Your task to perform on an android device: open a new tab in the chrome app Image 0: 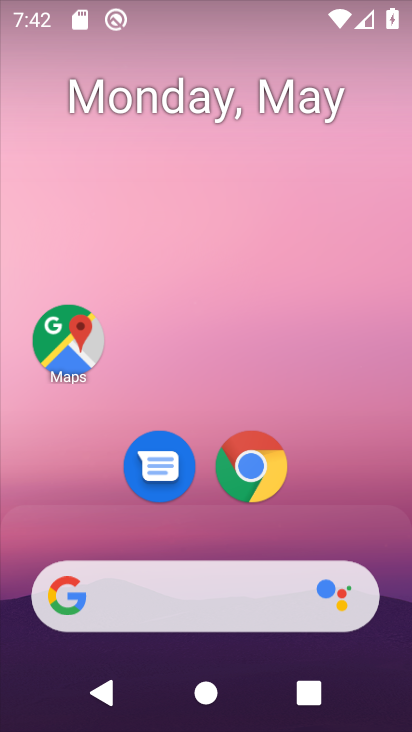
Step 0: drag from (243, 679) to (314, 191)
Your task to perform on an android device: open a new tab in the chrome app Image 1: 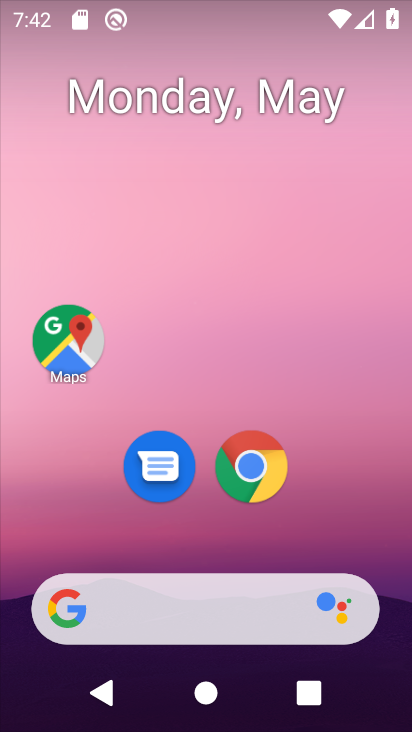
Step 1: drag from (223, 680) to (281, 5)
Your task to perform on an android device: open a new tab in the chrome app Image 2: 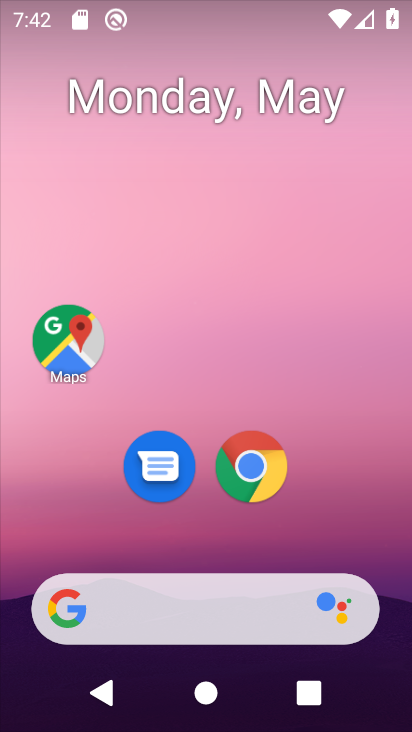
Step 2: drag from (261, 656) to (218, 17)
Your task to perform on an android device: open a new tab in the chrome app Image 3: 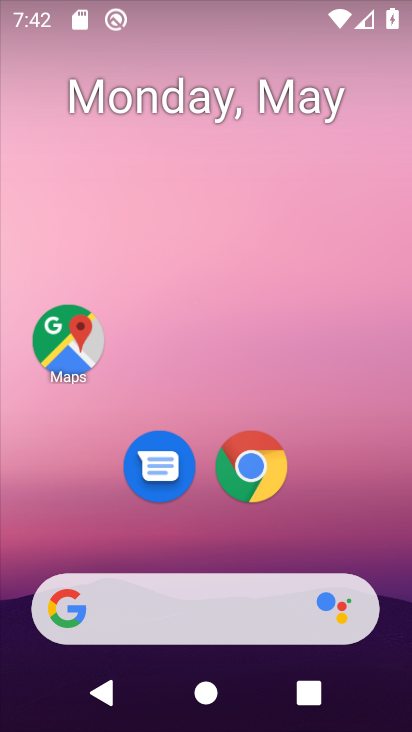
Step 3: drag from (260, 625) to (229, 147)
Your task to perform on an android device: open a new tab in the chrome app Image 4: 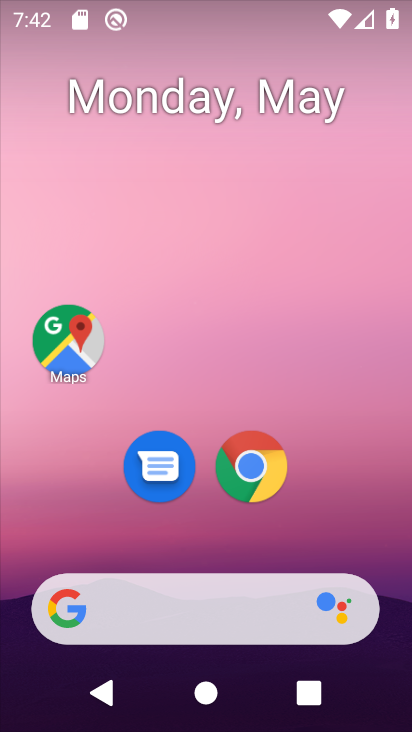
Step 4: drag from (338, 664) to (299, 39)
Your task to perform on an android device: open a new tab in the chrome app Image 5: 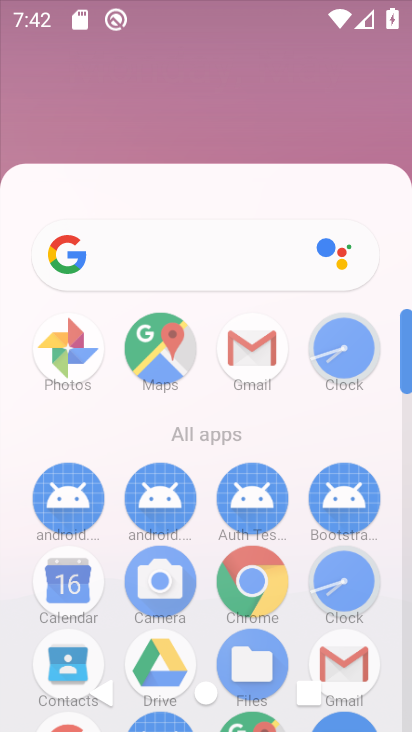
Step 5: drag from (311, 632) to (248, 51)
Your task to perform on an android device: open a new tab in the chrome app Image 6: 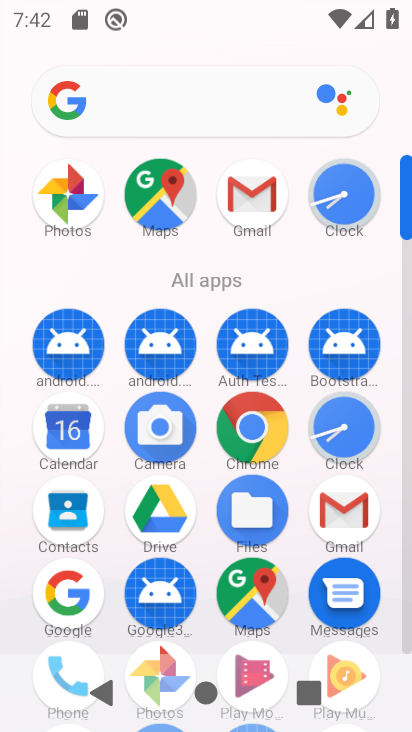
Step 6: click (240, 432)
Your task to perform on an android device: open a new tab in the chrome app Image 7: 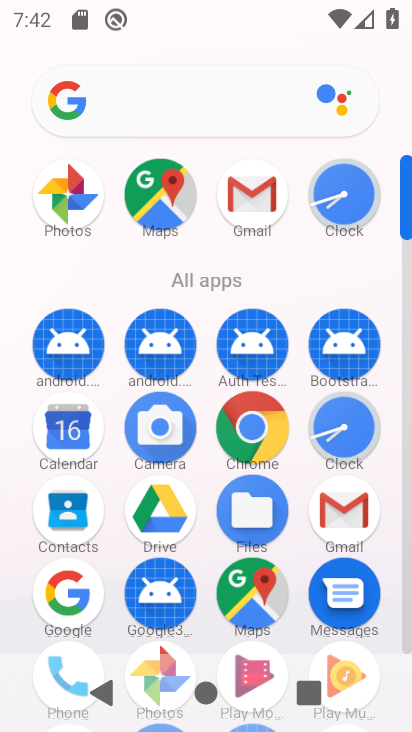
Step 7: click (241, 431)
Your task to perform on an android device: open a new tab in the chrome app Image 8: 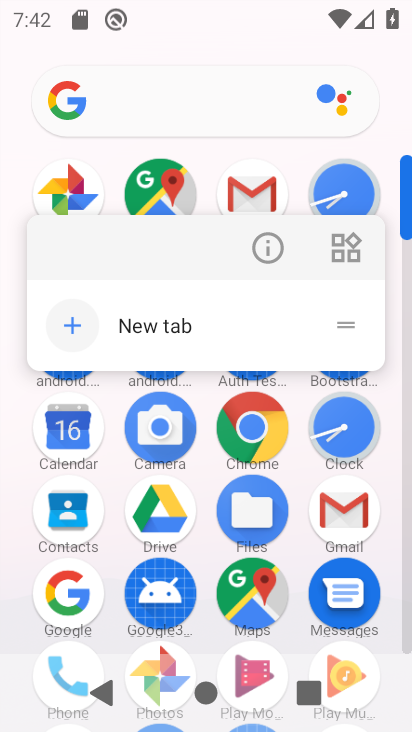
Step 8: click (253, 430)
Your task to perform on an android device: open a new tab in the chrome app Image 9: 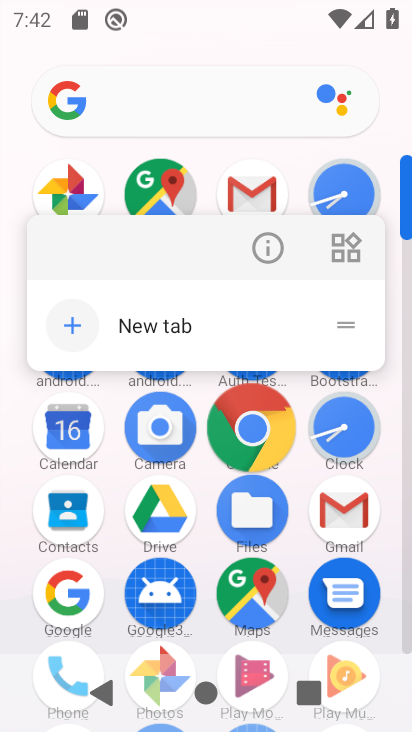
Step 9: click (250, 422)
Your task to perform on an android device: open a new tab in the chrome app Image 10: 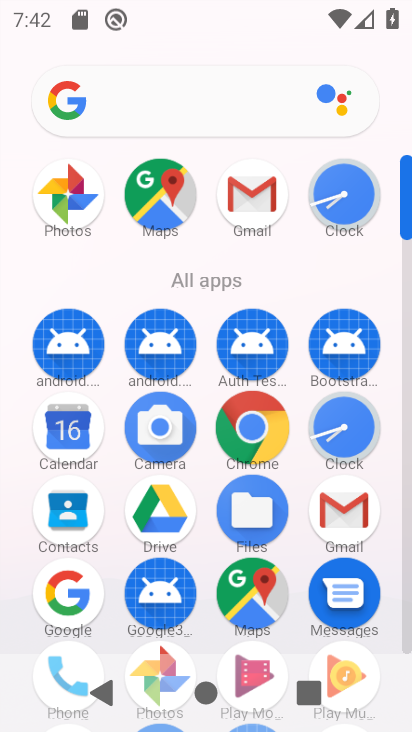
Step 10: click (251, 421)
Your task to perform on an android device: open a new tab in the chrome app Image 11: 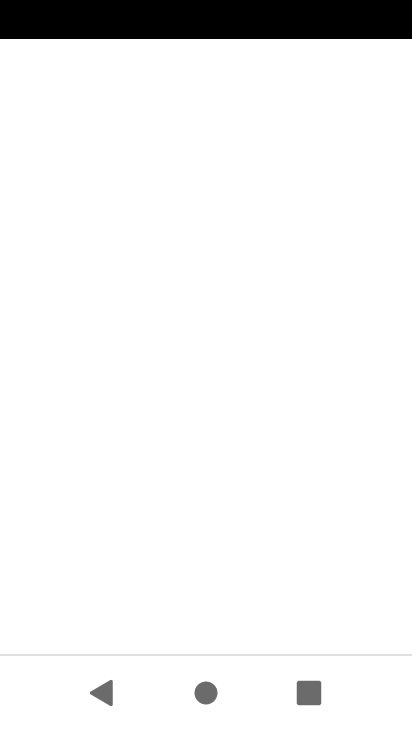
Step 11: click (254, 414)
Your task to perform on an android device: open a new tab in the chrome app Image 12: 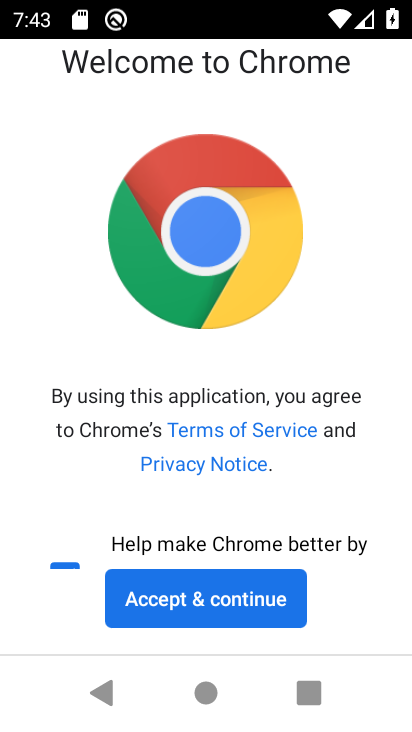
Step 12: click (218, 586)
Your task to perform on an android device: open a new tab in the chrome app Image 13: 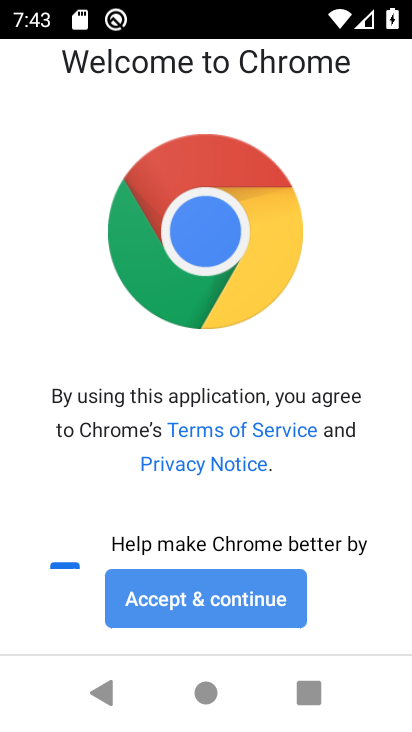
Step 13: click (217, 587)
Your task to perform on an android device: open a new tab in the chrome app Image 14: 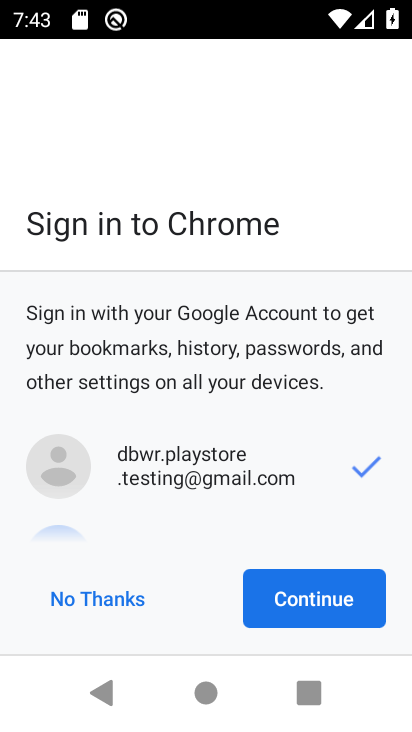
Step 14: click (229, 593)
Your task to perform on an android device: open a new tab in the chrome app Image 15: 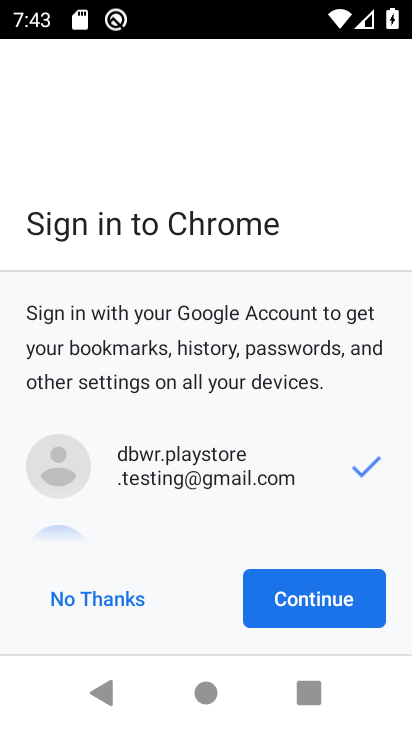
Step 15: click (301, 586)
Your task to perform on an android device: open a new tab in the chrome app Image 16: 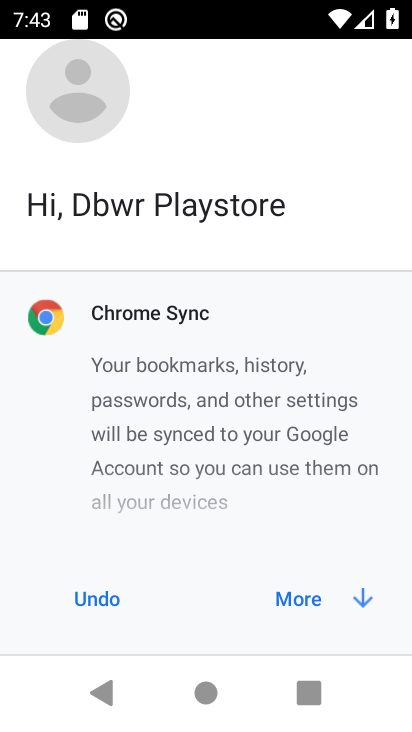
Step 16: click (310, 597)
Your task to perform on an android device: open a new tab in the chrome app Image 17: 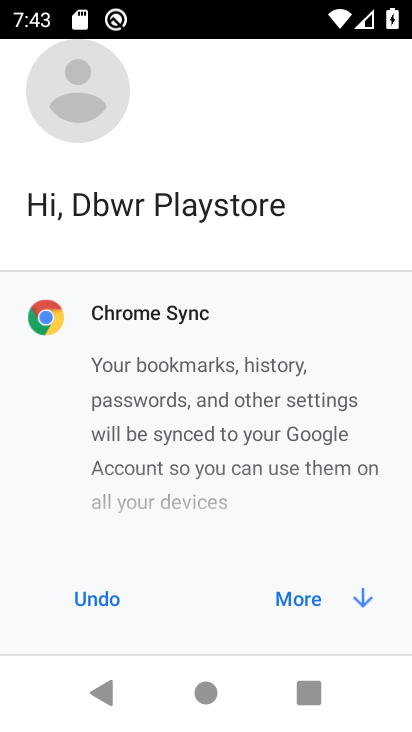
Step 17: click (310, 597)
Your task to perform on an android device: open a new tab in the chrome app Image 18: 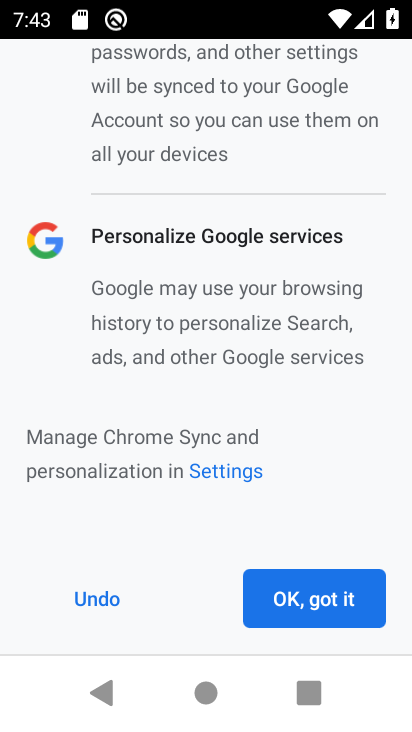
Step 18: click (327, 574)
Your task to perform on an android device: open a new tab in the chrome app Image 19: 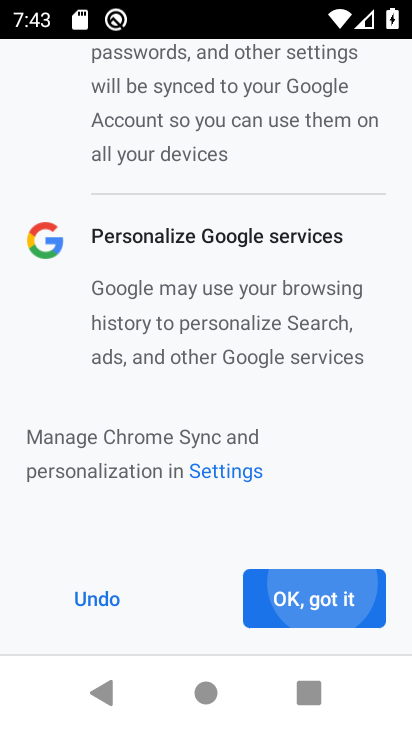
Step 19: click (320, 562)
Your task to perform on an android device: open a new tab in the chrome app Image 20: 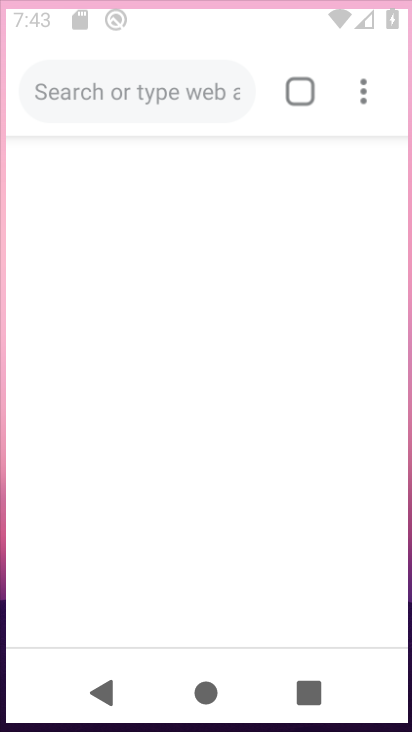
Step 20: click (324, 593)
Your task to perform on an android device: open a new tab in the chrome app Image 21: 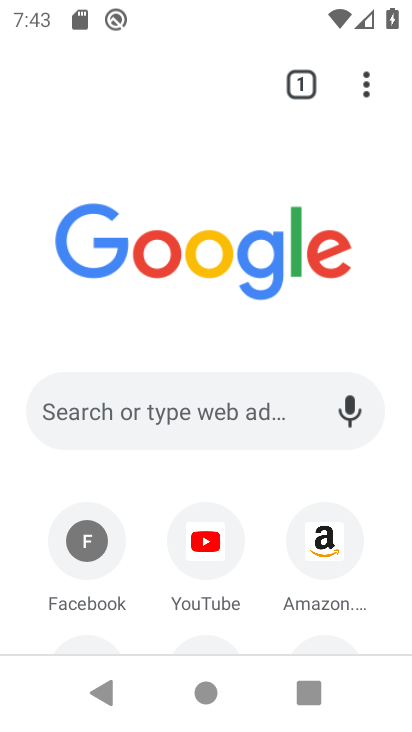
Step 21: task complete